Your task to perform on an android device: add a contact in the contacts app Image 0: 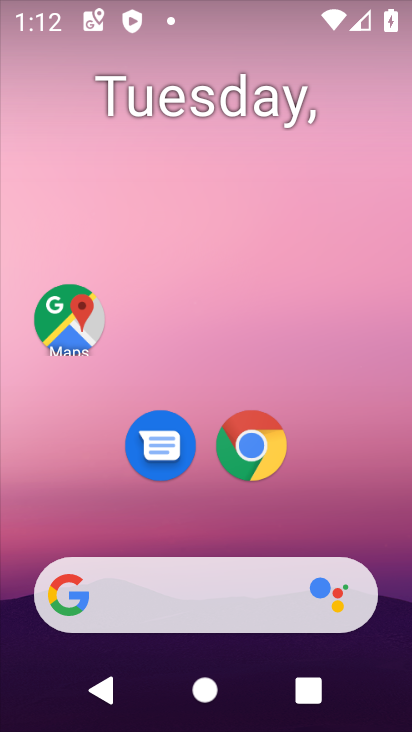
Step 0: drag from (366, 515) to (391, 214)
Your task to perform on an android device: add a contact in the contacts app Image 1: 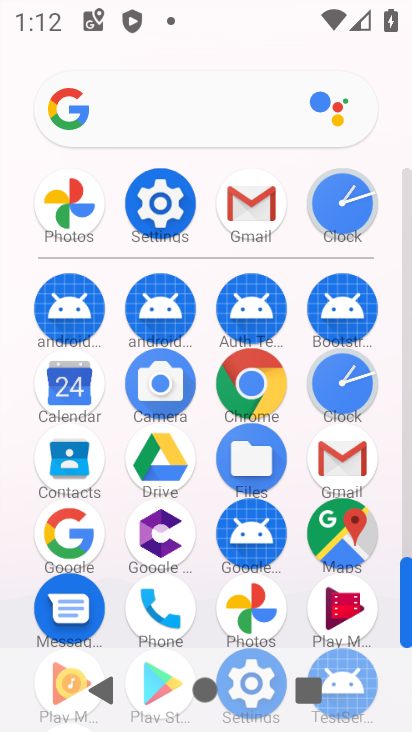
Step 1: drag from (387, 556) to (403, 222)
Your task to perform on an android device: add a contact in the contacts app Image 2: 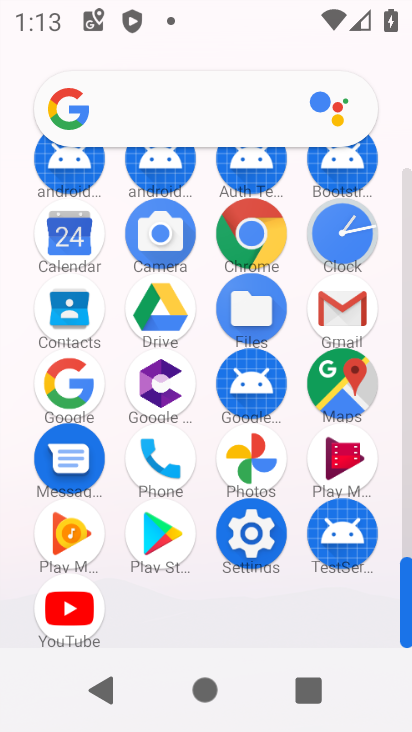
Step 2: click (155, 450)
Your task to perform on an android device: add a contact in the contacts app Image 3: 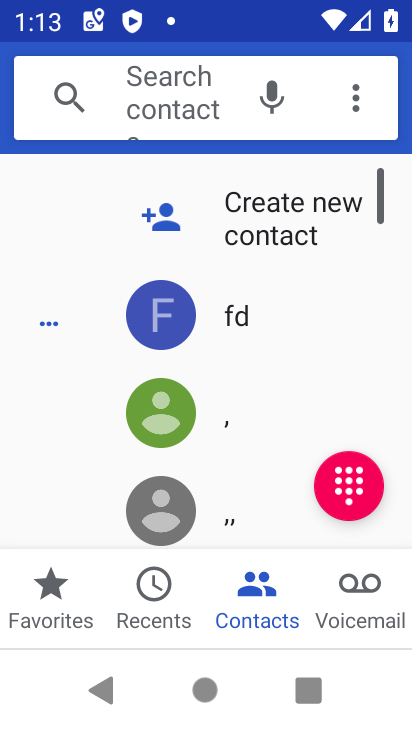
Step 3: task complete